Your task to perform on an android device: Open Youtube and go to "Your channel" Image 0: 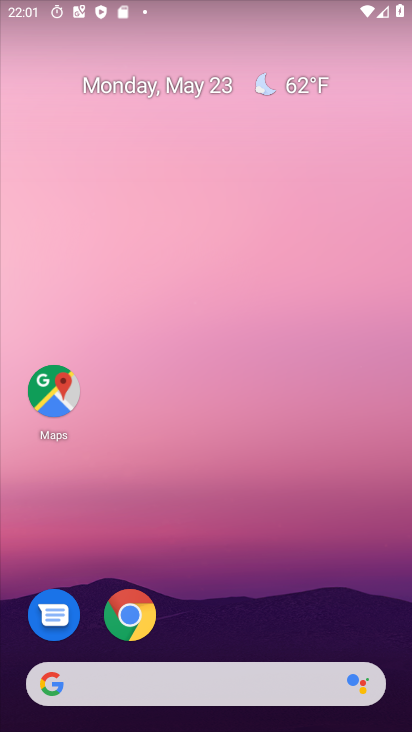
Step 0: drag from (204, 608) to (217, 103)
Your task to perform on an android device: Open Youtube and go to "Your channel" Image 1: 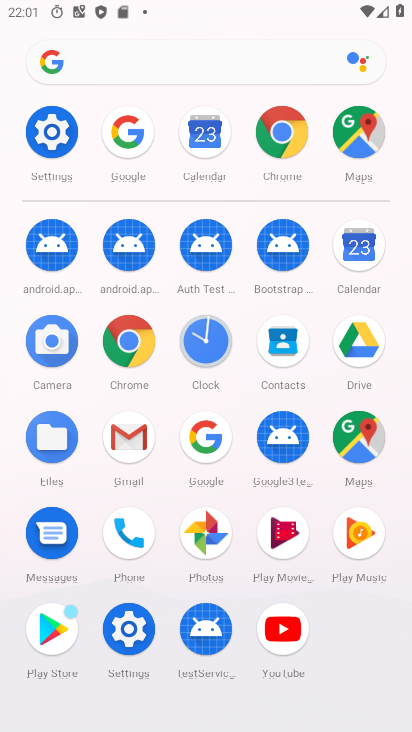
Step 1: click (277, 630)
Your task to perform on an android device: Open Youtube and go to "Your channel" Image 2: 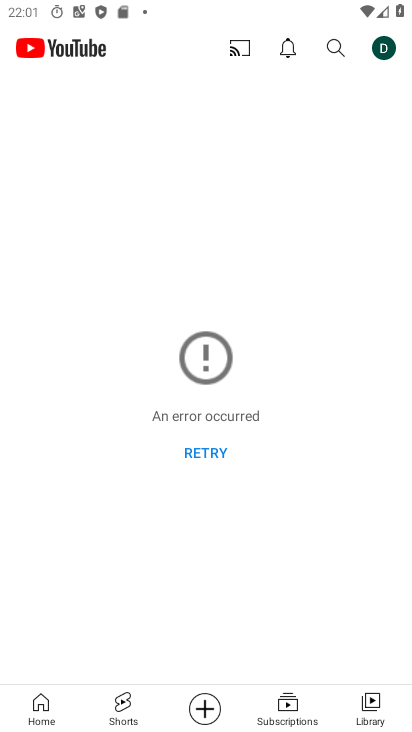
Step 2: click (386, 38)
Your task to perform on an android device: Open Youtube and go to "Your channel" Image 3: 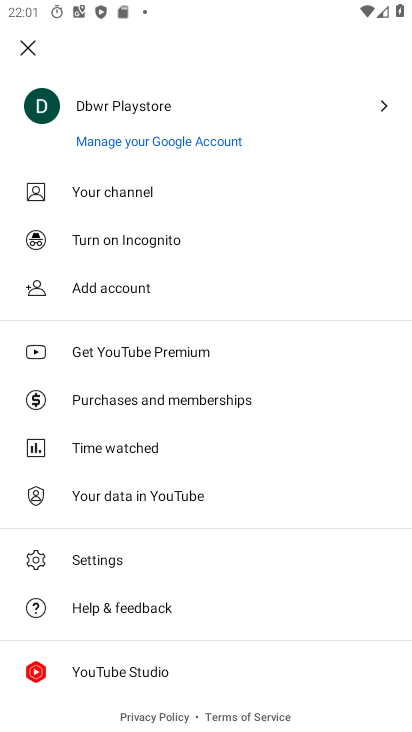
Step 3: click (120, 190)
Your task to perform on an android device: Open Youtube and go to "Your channel" Image 4: 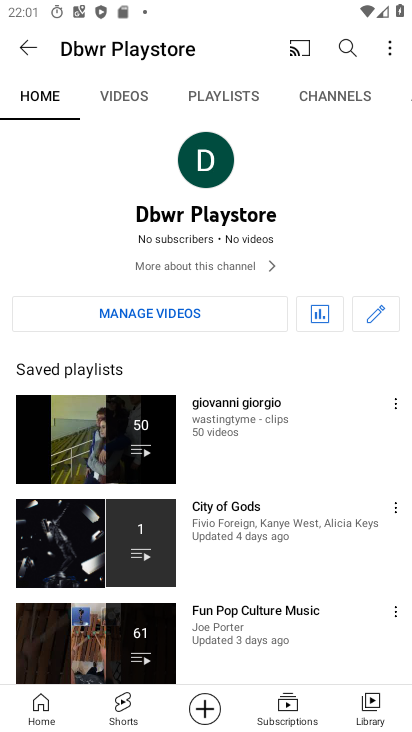
Step 4: task complete